Your task to perform on an android device: set an alarm Image 0: 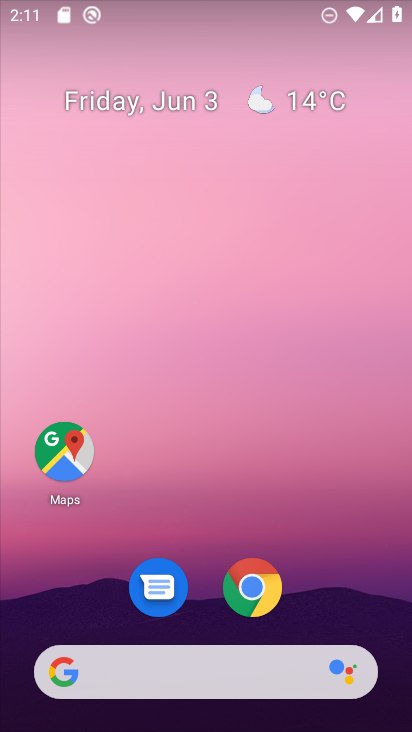
Step 0: drag from (331, 626) to (298, 39)
Your task to perform on an android device: set an alarm Image 1: 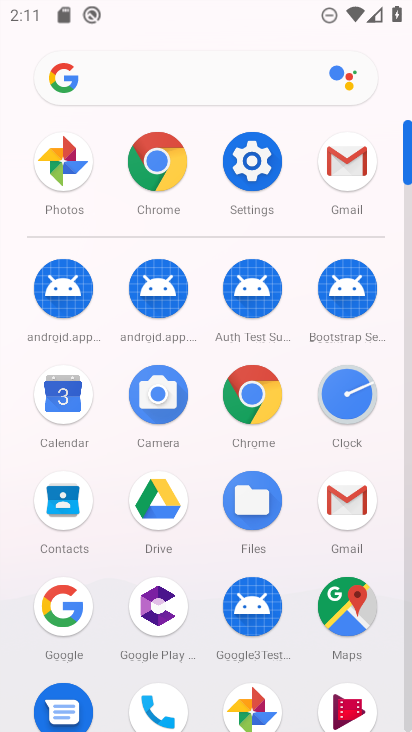
Step 1: click (339, 397)
Your task to perform on an android device: set an alarm Image 2: 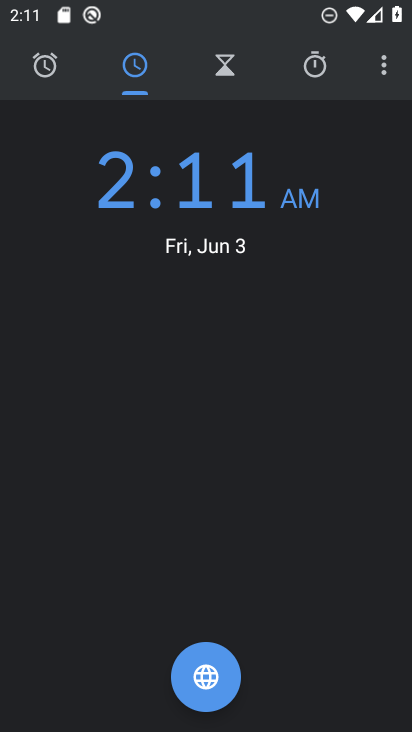
Step 2: click (31, 68)
Your task to perform on an android device: set an alarm Image 3: 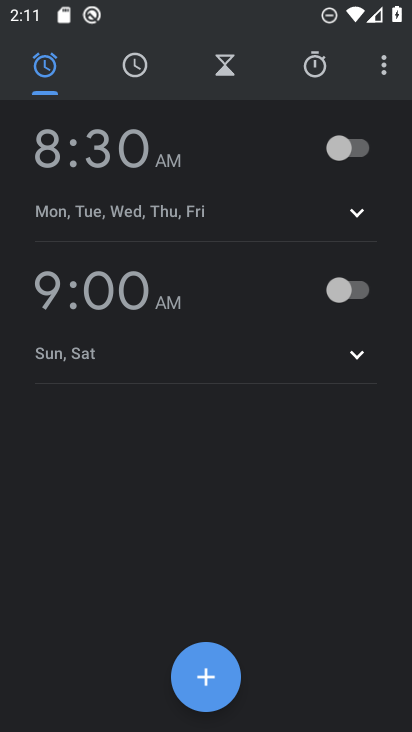
Step 3: click (210, 694)
Your task to perform on an android device: set an alarm Image 4: 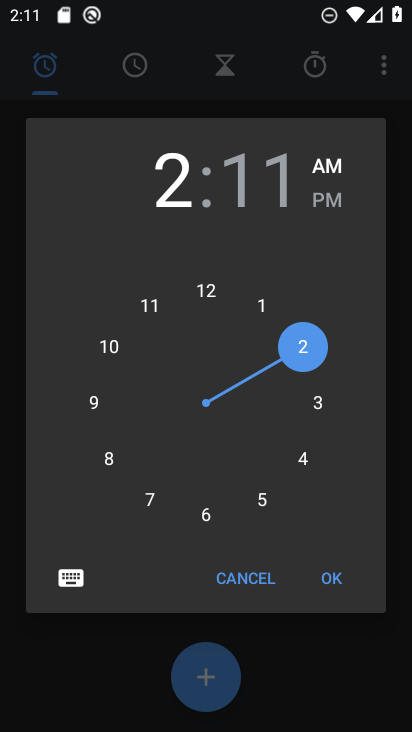
Step 4: click (322, 585)
Your task to perform on an android device: set an alarm Image 5: 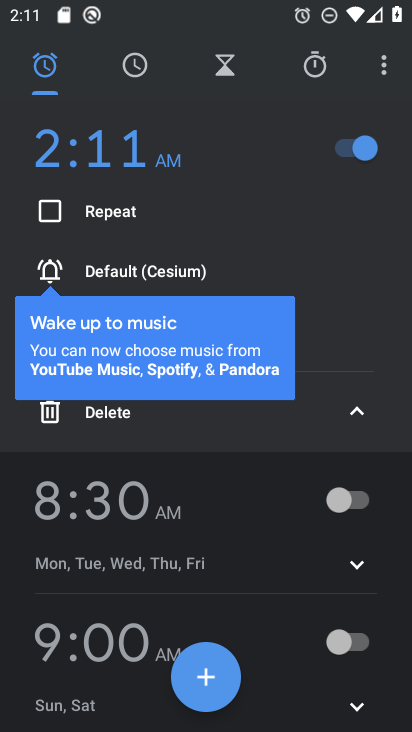
Step 5: task complete